Your task to perform on an android device: Open notification settings Image 0: 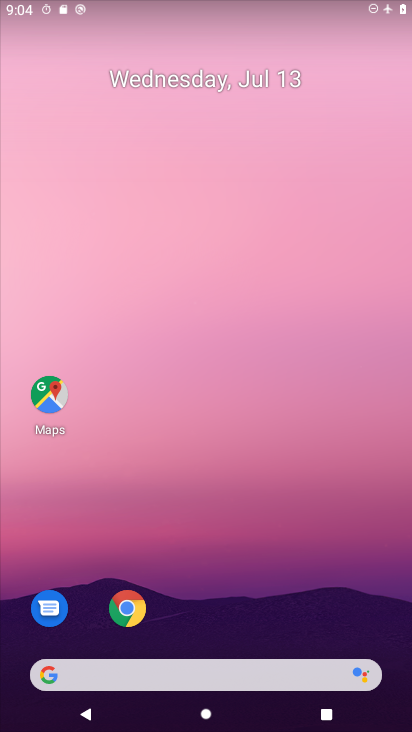
Step 0: drag from (264, 727) to (193, 304)
Your task to perform on an android device: Open notification settings Image 1: 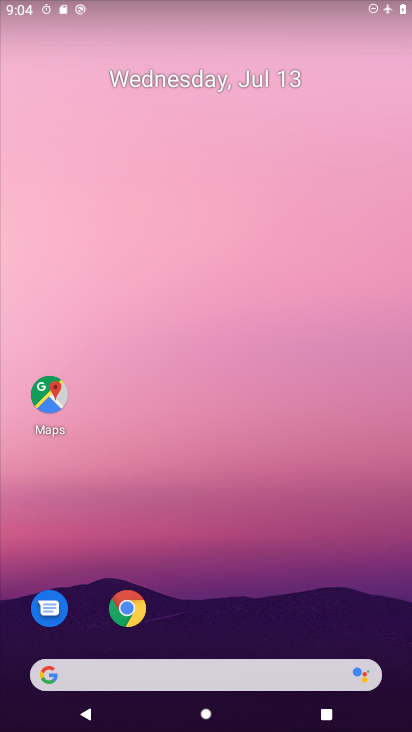
Step 1: drag from (261, 693) to (225, 239)
Your task to perform on an android device: Open notification settings Image 2: 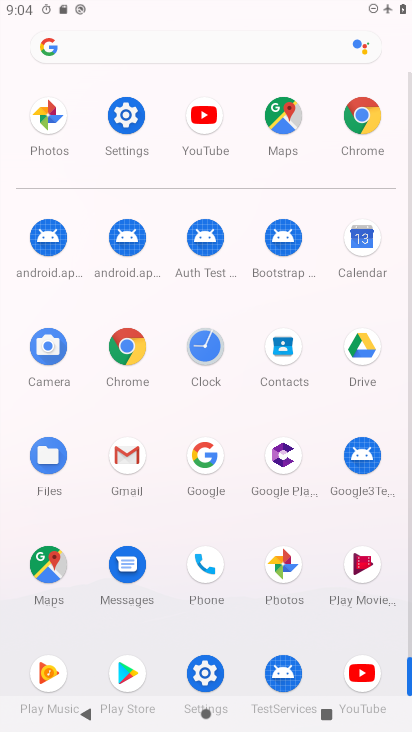
Step 2: click (124, 120)
Your task to perform on an android device: Open notification settings Image 3: 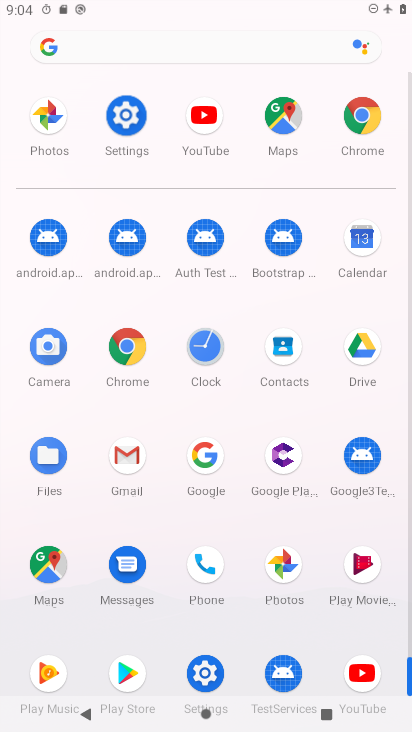
Step 3: click (124, 120)
Your task to perform on an android device: Open notification settings Image 4: 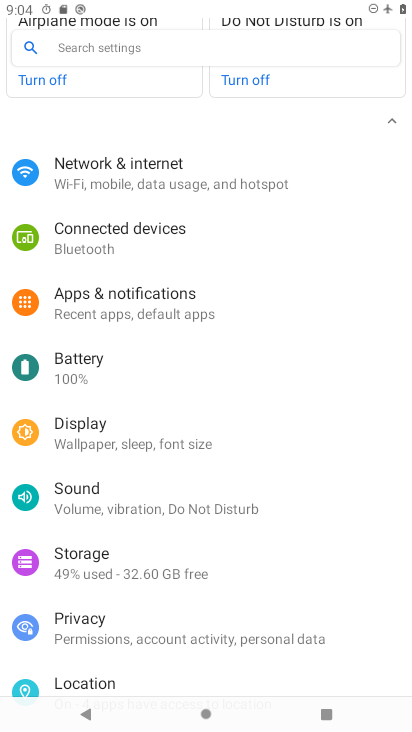
Step 4: click (125, 363)
Your task to perform on an android device: Open notification settings Image 5: 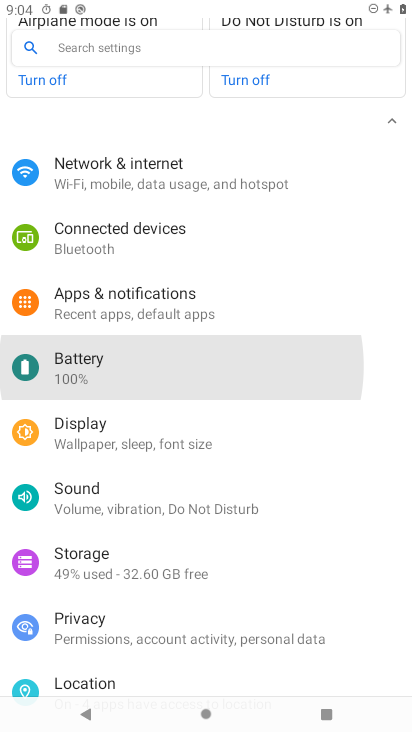
Step 5: click (125, 363)
Your task to perform on an android device: Open notification settings Image 6: 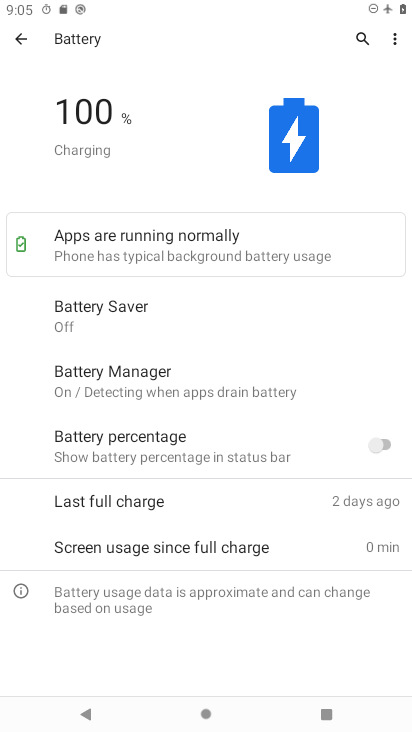
Step 6: click (20, 33)
Your task to perform on an android device: Open notification settings Image 7: 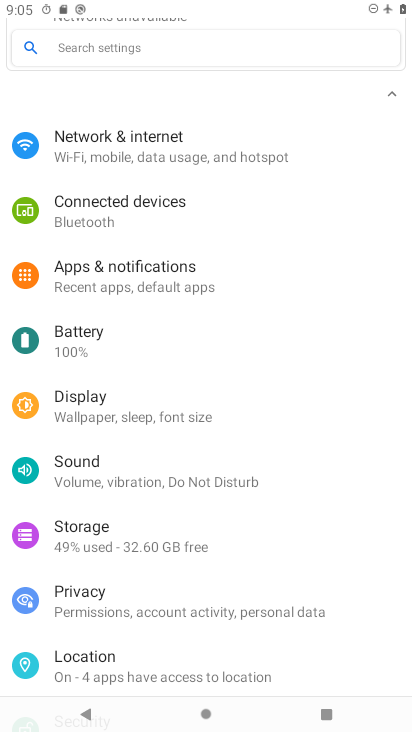
Step 7: click (115, 281)
Your task to perform on an android device: Open notification settings Image 8: 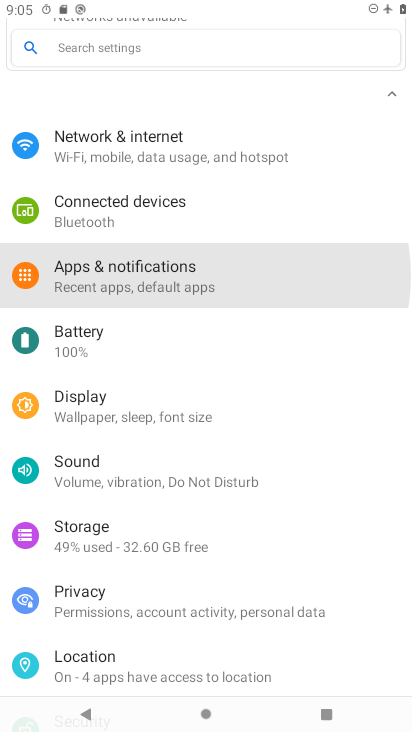
Step 8: click (115, 279)
Your task to perform on an android device: Open notification settings Image 9: 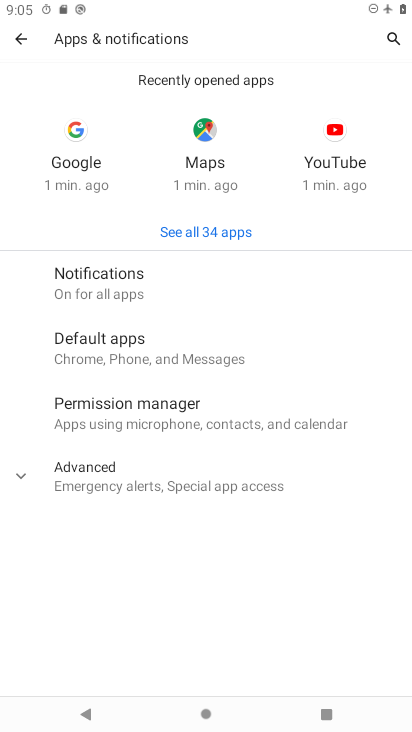
Step 9: click (96, 279)
Your task to perform on an android device: Open notification settings Image 10: 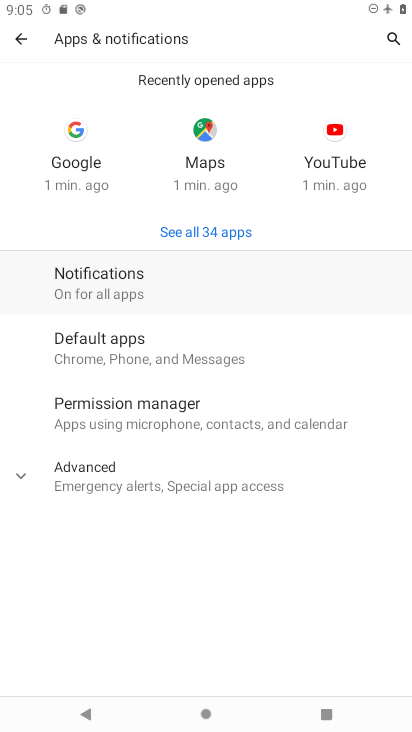
Step 10: click (94, 279)
Your task to perform on an android device: Open notification settings Image 11: 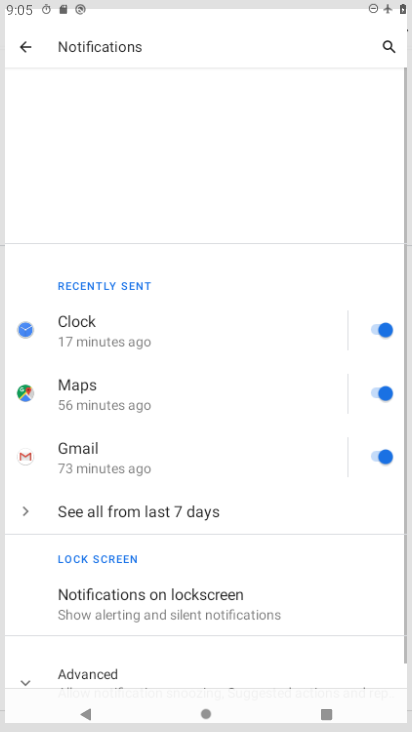
Step 11: click (96, 281)
Your task to perform on an android device: Open notification settings Image 12: 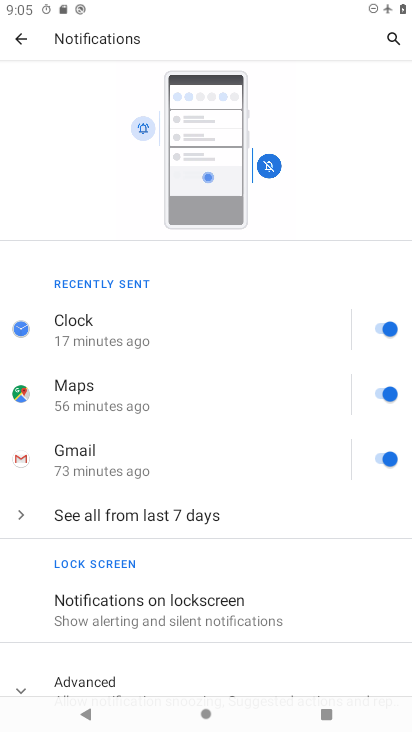
Step 12: task complete